Your task to perform on an android device: move an email to a new category in the gmail app Image 0: 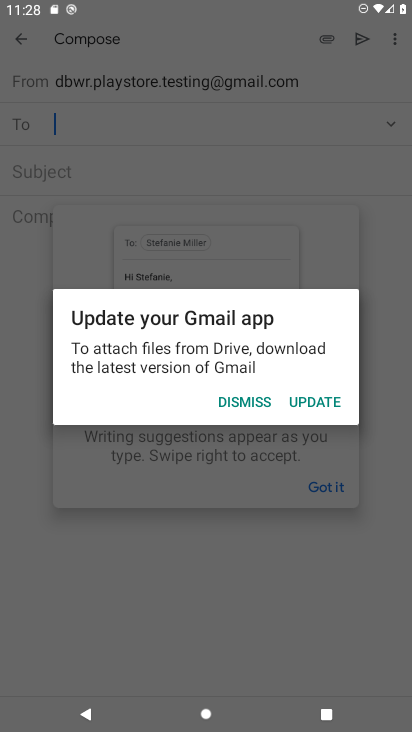
Step 0: press home button
Your task to perform on an android device: move an email to a new category in the gmail app Image 1: 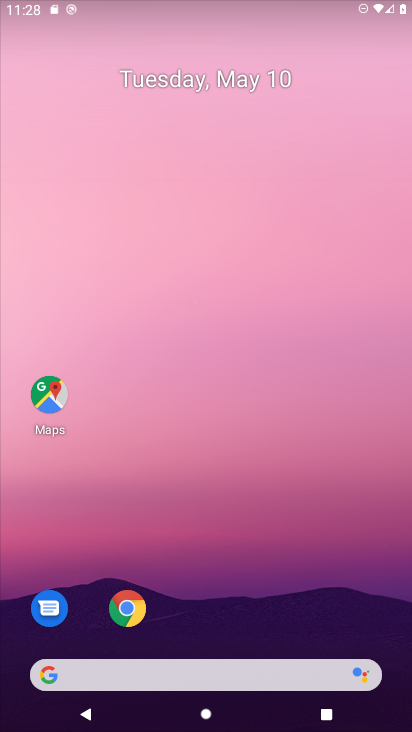
Step 1: drag from (256, 516) to (261, 93)
Your task to perform on an android device: move an email to a new category in the gmail app Image 2: 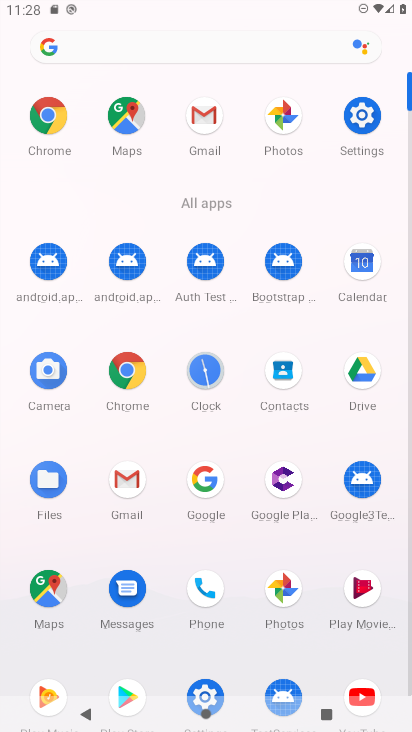
Step 2: click (208, 117)
Your task to perform on an android device: move an email to a new category in the gmail app Image 3: 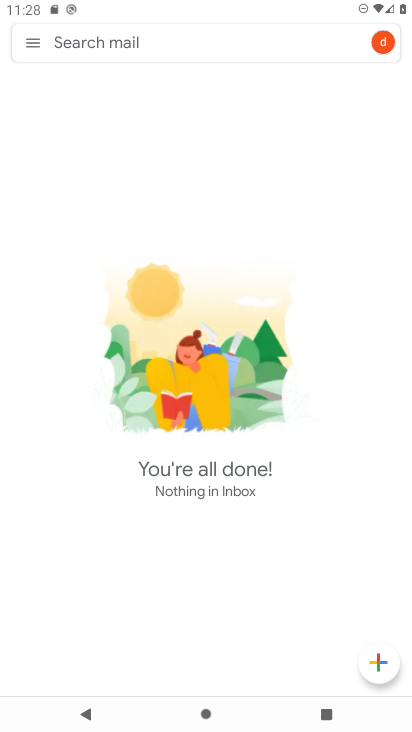
Step 3: click (34, 41)
Your task to perform on an android device: move an email to a new category in the gmail app Image 4: 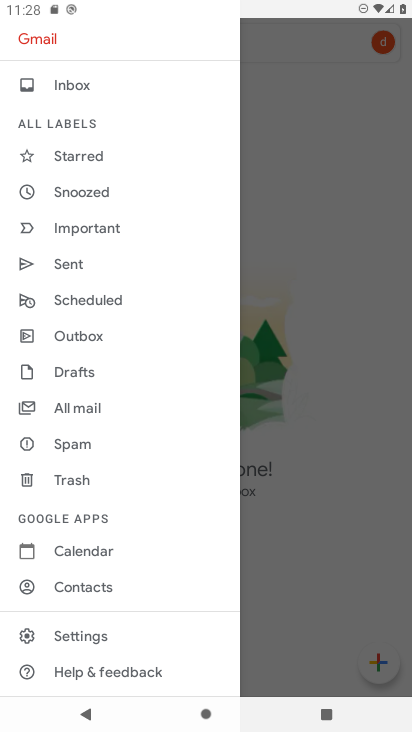
Step 4: click (117, 407)
Your task to perform on an android device: move an email to a new category in the gmail app Image 5: 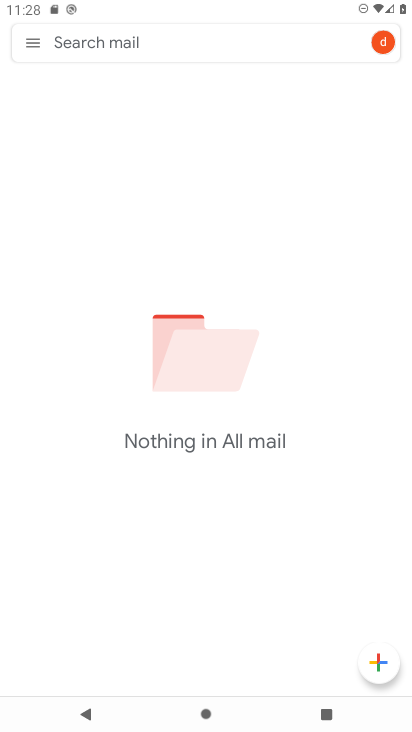
Step 5: task complete